Your task to perform on an android device: When is my next appointment? Image 0: 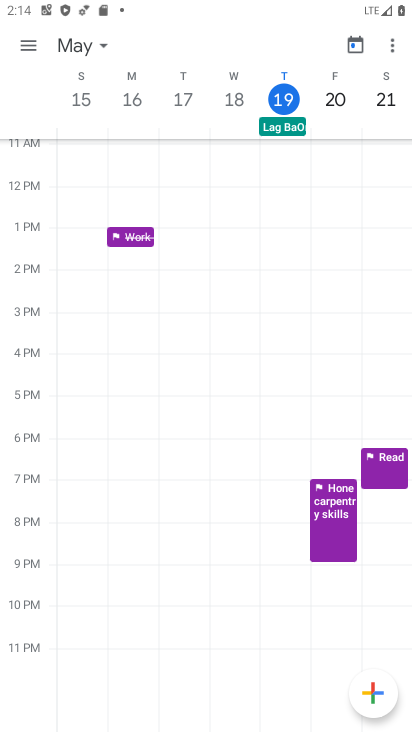
Step 0: click (25, 43)
Your task to perform on an android device: When is my next appointment? Image 1: 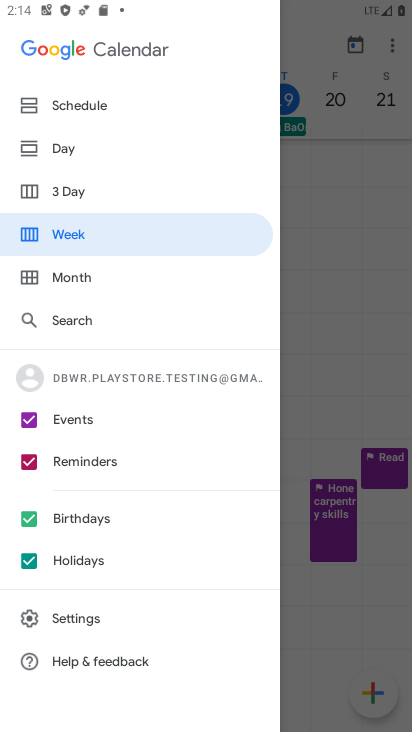
Step 1: click (113, 96)
Your task to perform on an android device: When is my next appointment? Image 2: 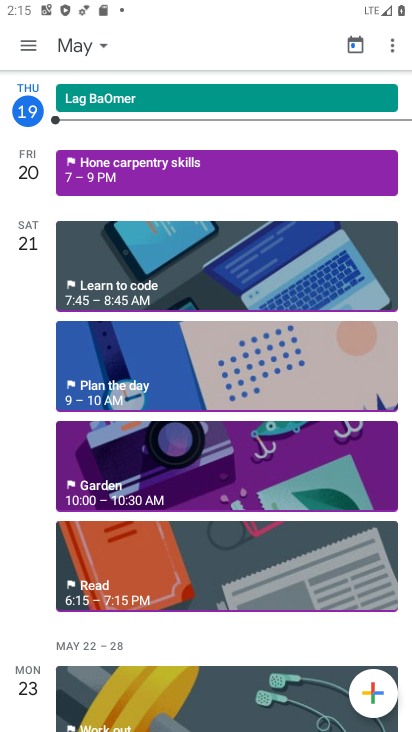
Step 2: task complete